Your task to perform on an android device: check battery use Image 0: 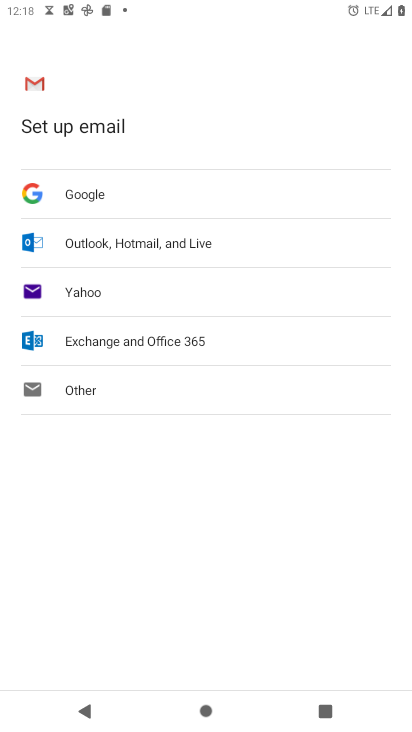
Step 0: press home button
Your task to perform on an android device: check battery use Image 1: 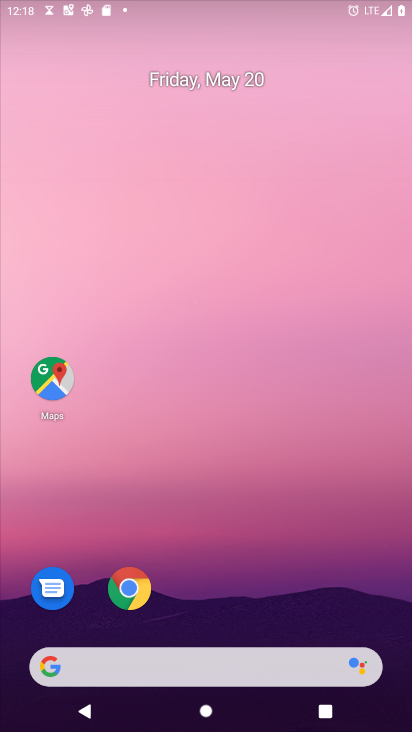
Step 1: drag from (324, 523) to (232, 9)
Your task to perform on an android device: check battery use Image 2: 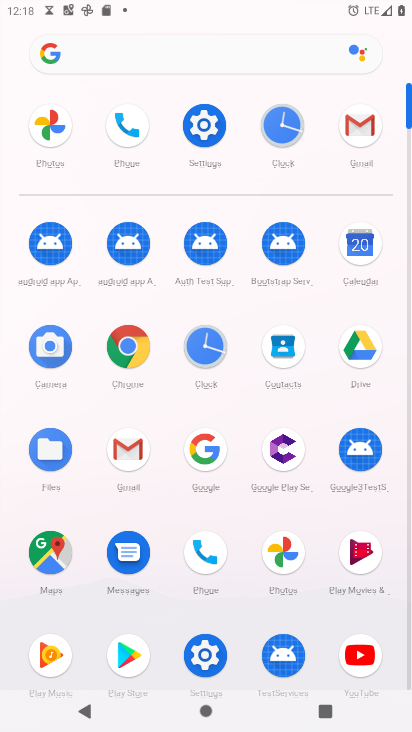
Step 2: click (203, 117)
Your task to perform on an android device: check battery use Image 3: 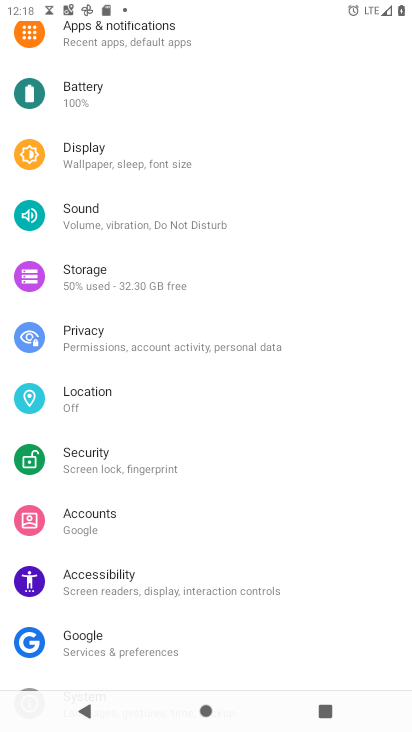
Step 3: click (181, 75)
Your task to perform on an android device: check battery use Image 4: 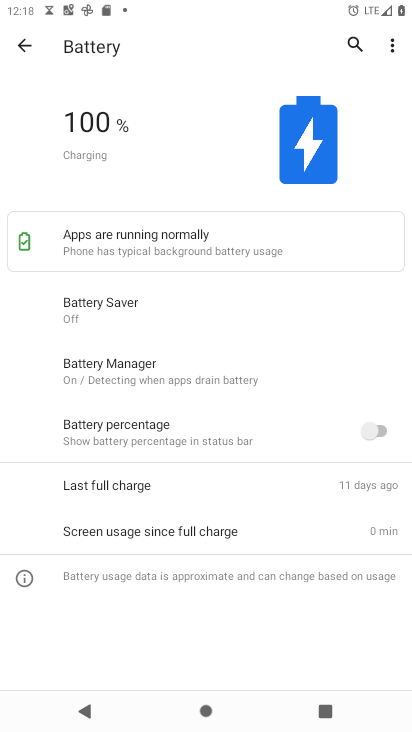
Step 4: click (395, 38)
Your task to perform on an android device: check battery use Image 5: 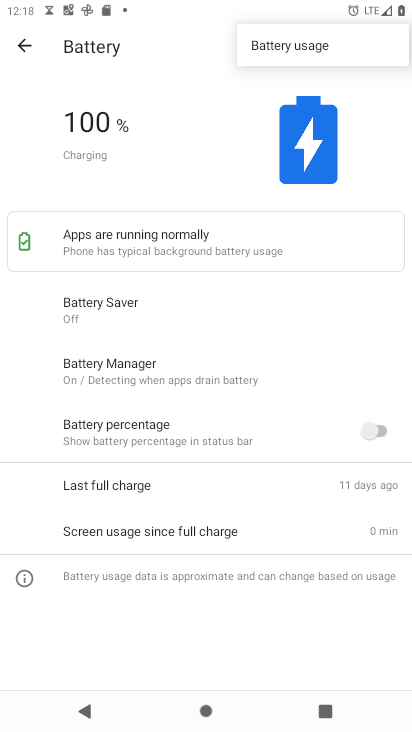
Step 5: click (324, 43)
Your task to perform on an android device: check battery use Image 6: 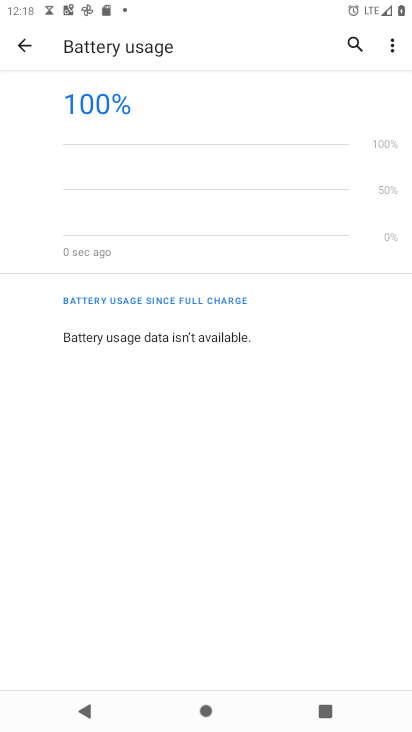
Step 6: task complete